Your task to perform on an android device: turn off wifi Image 0: 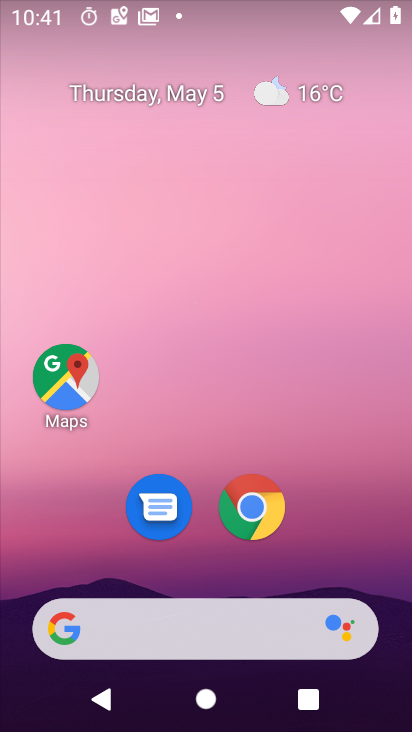
Step 0: drag from (188, 477) to (216, 292)
Your task to perform on an android device: turn off wifi Image 1: 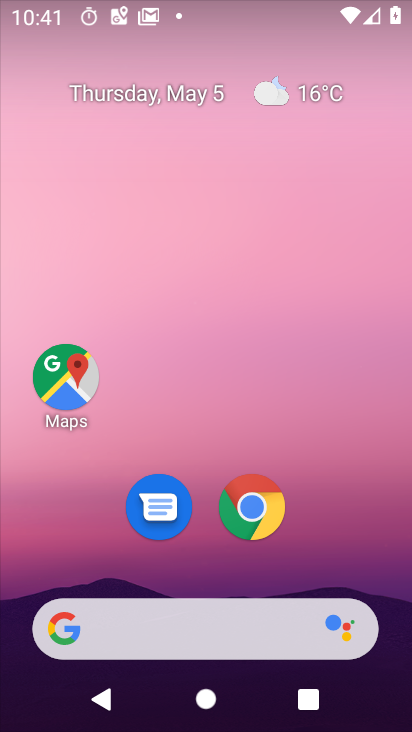
Step 1: drag from (197, 577) to (209, 216)
Your task to perform on an android device: turn off wifi Image 2: 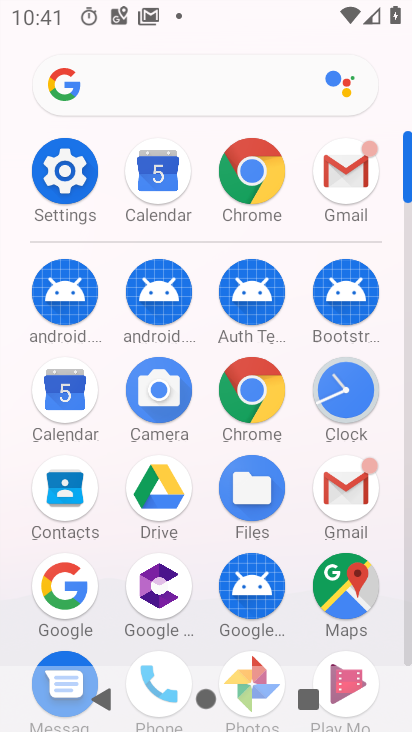
Step 2: drag from (294, 509) to (323, 285)
Your task to perform on an android device: turn off wifi Image 3: 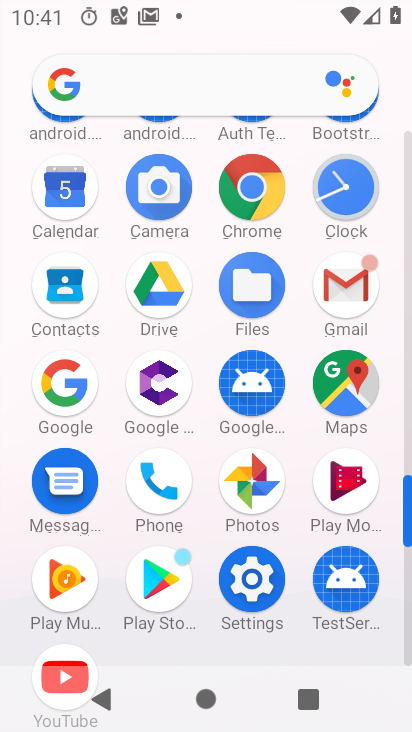
Step 3: click (249, 584)
Your task to perform on an android device: turn off wifi Image 4: 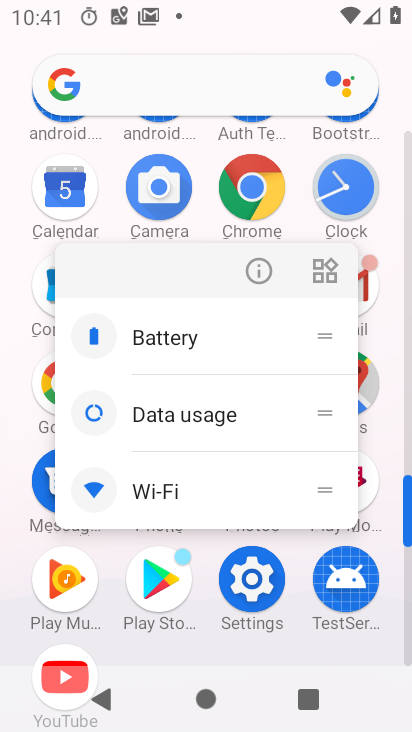
Step 4: click (265, 268)
Your task to perform on an android device: turn off wifi Image 5: 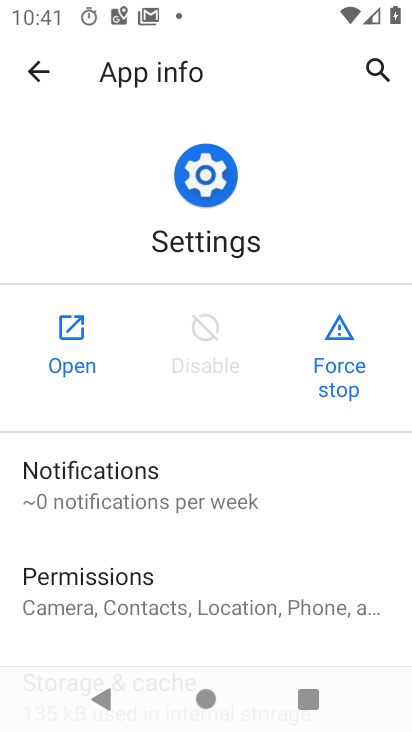
Step 5: click (73, 333)
Your task to perform on an android device: turn off wifi Image 6: 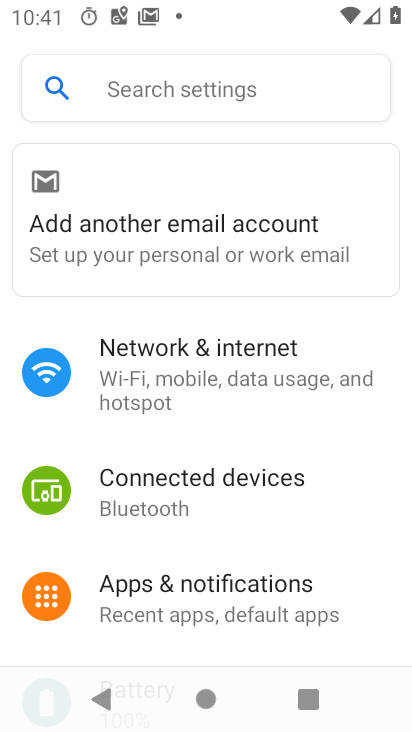
Step 6: click (164, 358)
Your task to perform on an android device: turn off wifi Image 7: 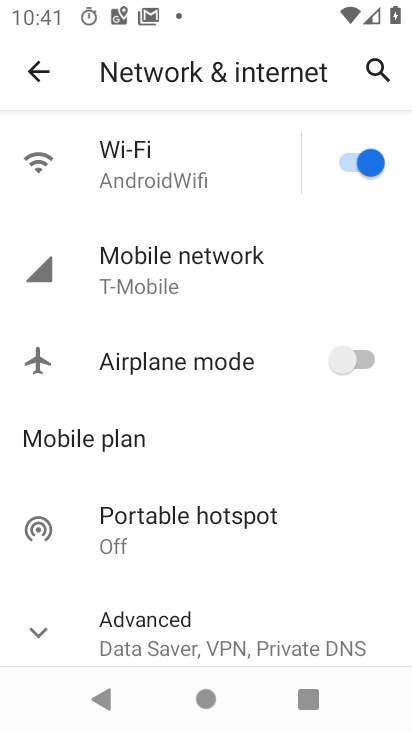
Step 7: click (345, 166)
Your task to perform on an android device: turn off wifi Image 8: 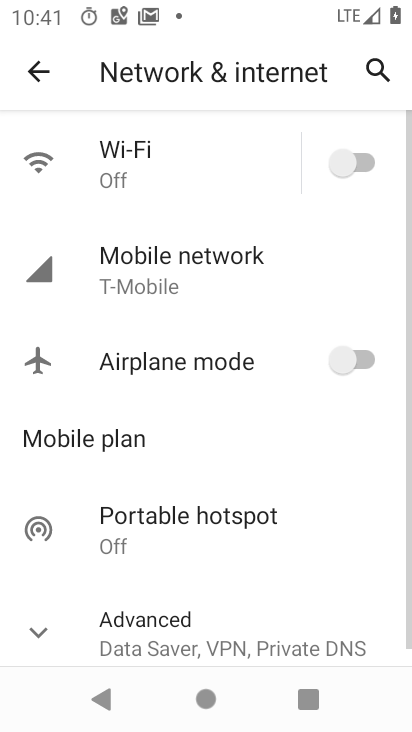
Step 8: task complete